Your task to perform on an android device: find which apps use the phone's location Image 0: 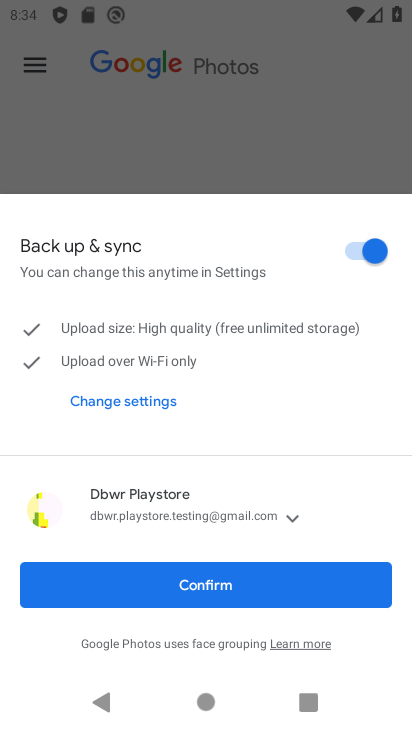
Step 0: click (316, 582)
Your task to perform on an android device: find which apps use the phone's location Image 1: 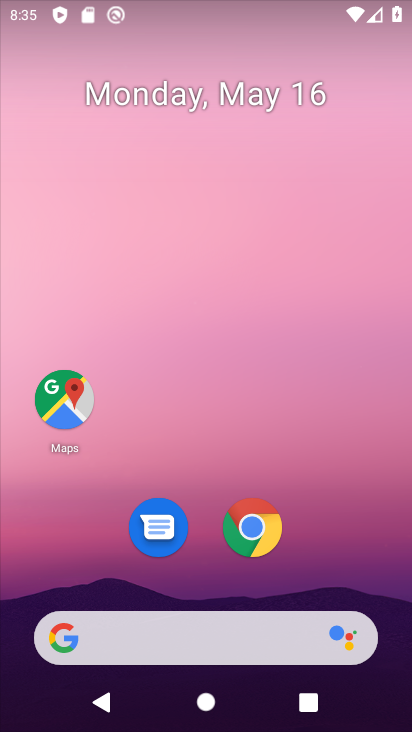
Step 1: drag from (395, 592) to (407, 372)
Your task to perform on an android device: find which apps use the phone's location Image 2: 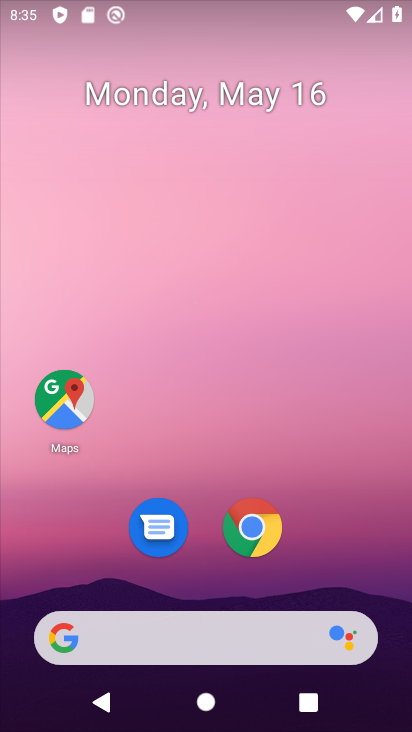
Step 2: drag from (397, 658) to (403, 248)
Your task to perform on an android device: find which apps use the phone's location Image 3: 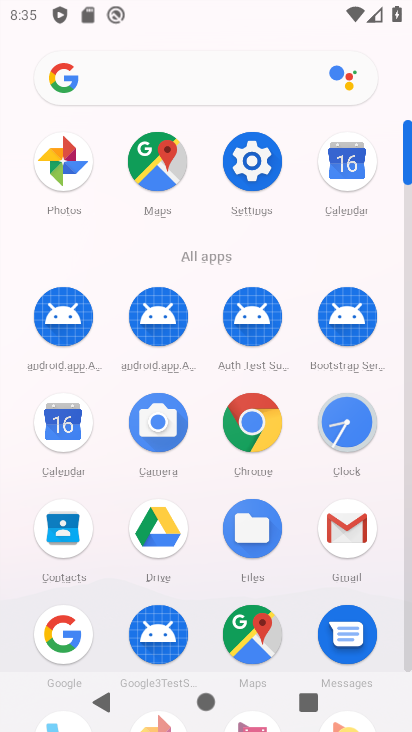
Step 3: click (251, 155)
Your task to perform on an android device: find which apps use the phone's location Image 4: 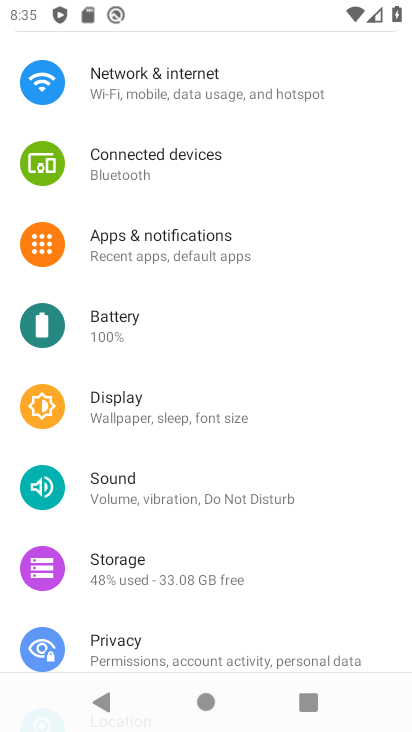
Step 4: drag from (346, 585) to (356, 301)
Your task to perform on an android device: find which apps use the phone's location Image 5: 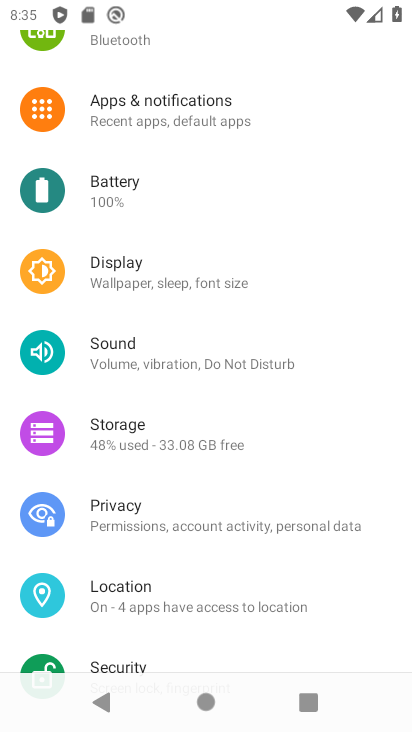
Step 5: click (121, 586)
Your task to perform on an android device: find which apps use the phone's location Image 6: 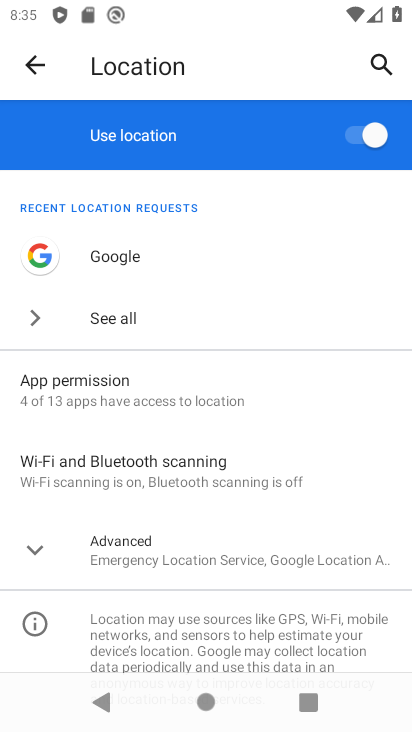
Step 6: click (44, 394)
Your task to perform on an android device: find which apps use the phone's location Image 7: 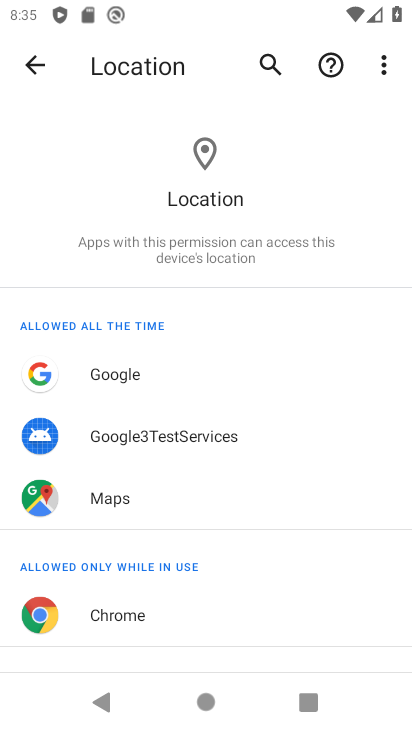
Step 7: task complete